Your task to perform on an android device: Open eBay Image 0: 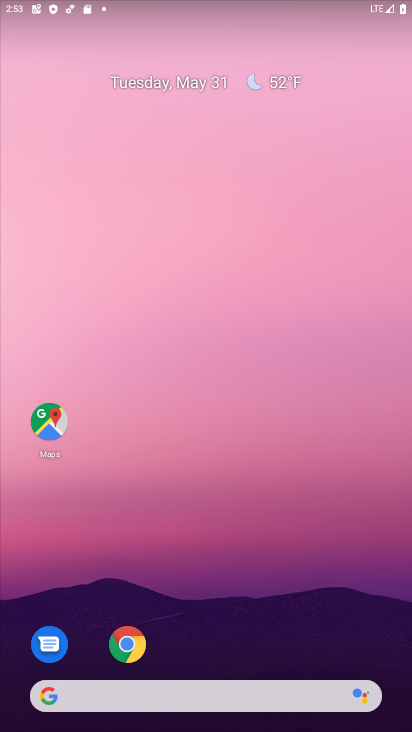
Step 0: click (217, 697)
Your task to perform on an android device: Open eBay Image 1: 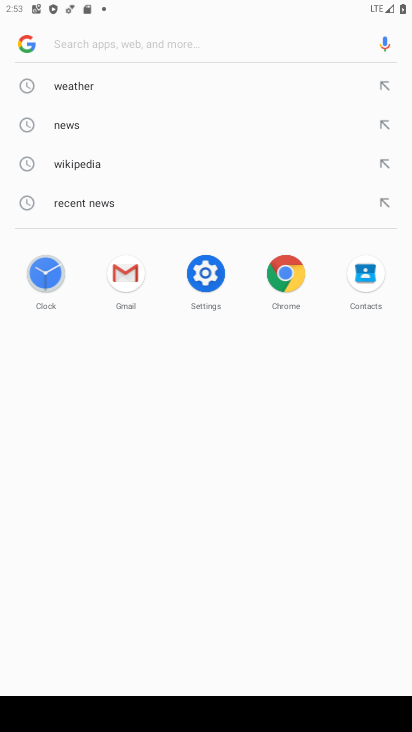
Step 1: type " eBay"
Your task to perform on an android device: Open eBay Image 2: 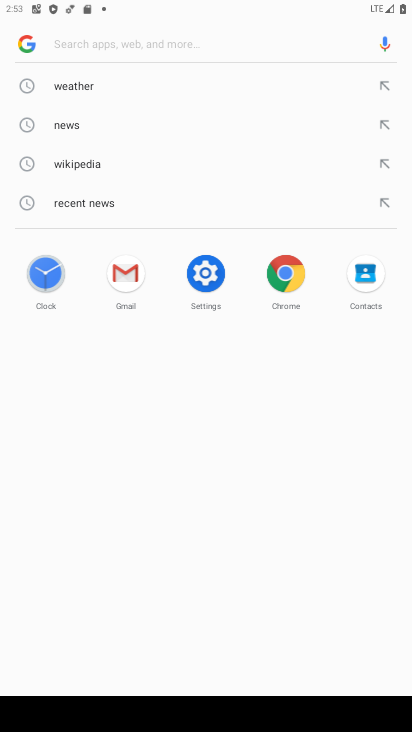
Step 2: click (142, 42)
Your task to perform on an android device: Open eBay Image 3: 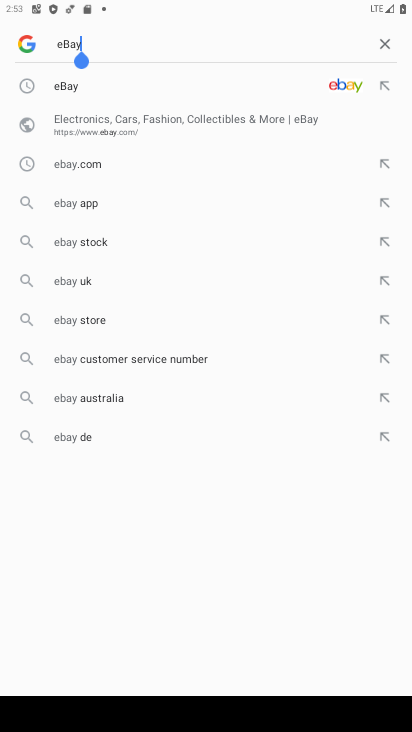
Step 3: click (334, 85)
Your task to perform on an android device: Open eBay Image 4: 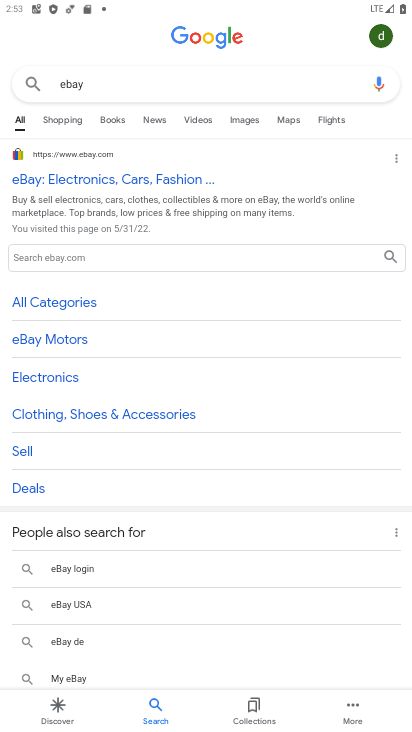
Step 4: click (59, 179)
Your task to perform on an android device: Open eBay Image 5: 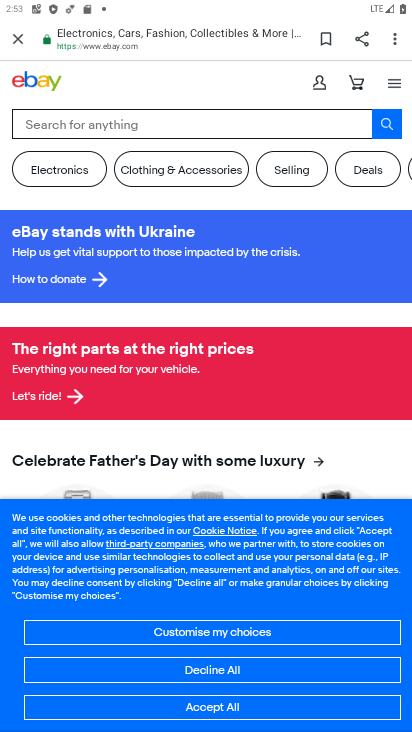
Step 5: task complete